Your task to perform on an android device: Open the calendar app, open the side menu, and click the "Day" option Image 0: 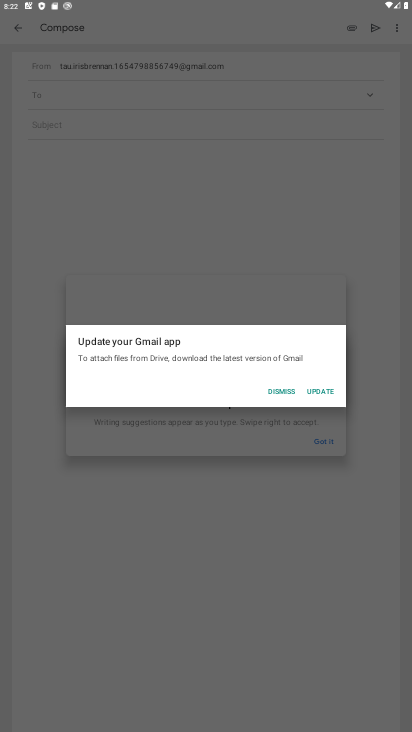
Step 0: click (334, 445)
Your task to perform on an android device: Open the calendar app, open the side menu, and click the "Day" option Image 1: 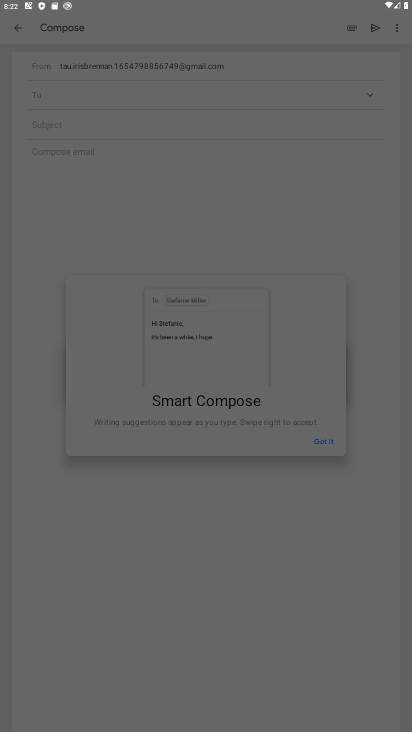
Step 1: press home button
Your task to perform on an android device: Open the calendar app, open the side menu, and click the "Day" option Image 2: 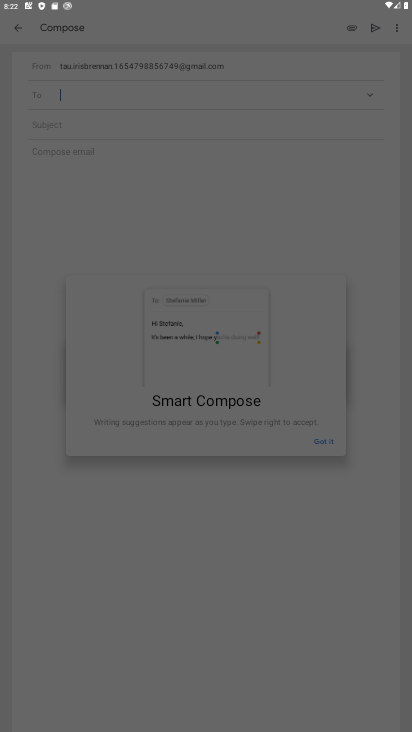
Step 2: click (174, 159)
Your task to perform on an android device: Open the calendar app, open the side menu, and click the "Day" option Image 3: 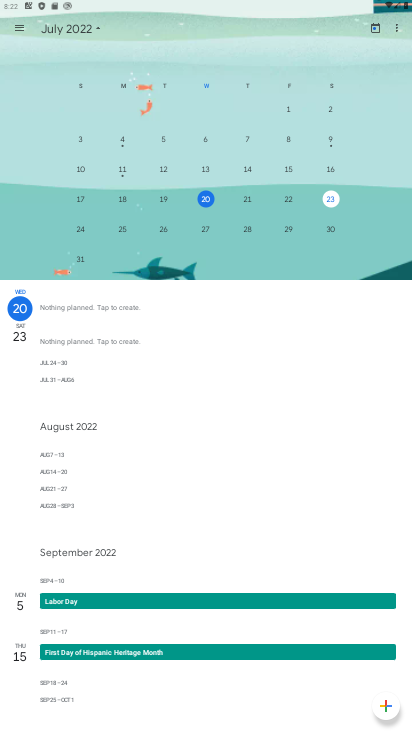
Step 3: drag from (201, 415) to (293, 7)
Your task to perform on an android device: Open the calendar app, open the side menu, and click the "Day" option Image 4: 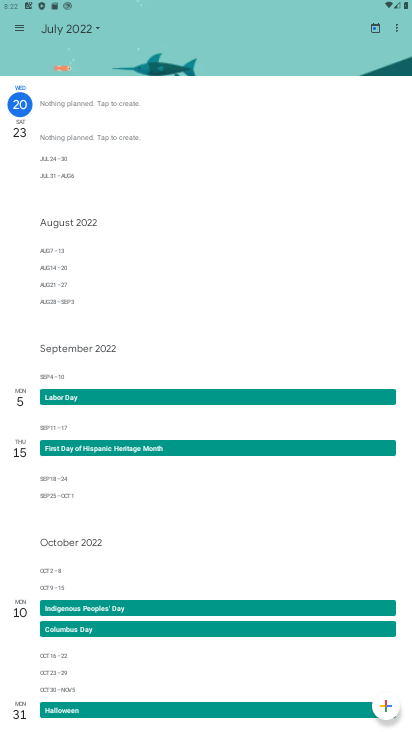
Step 4: press home button
Your task to perform on an android device: Open the calendar app, open the side menu, and click the "Day" option Image 5: 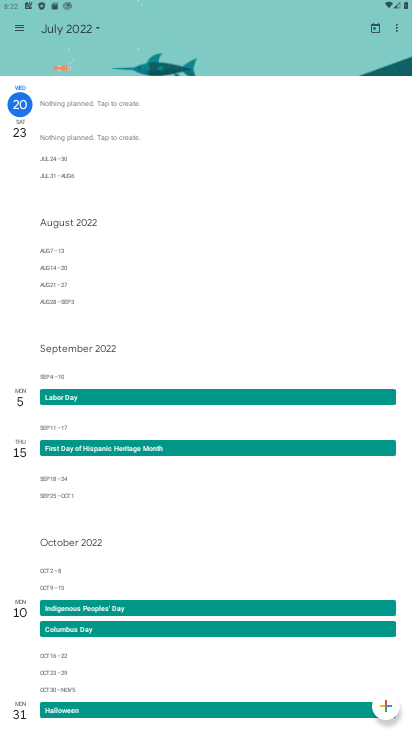
Step 5: drag from (163, 301) to (223, 15)
Your task to perform on an android device: Open the calendar app, open the side menu, and click the "Day" option Image 6: 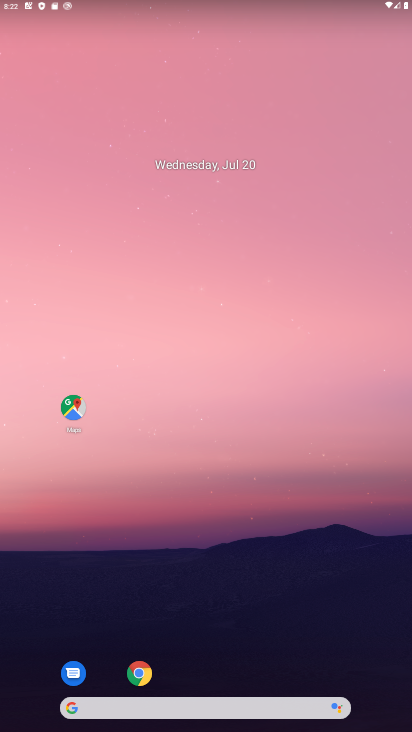
Step 6: drag from (155, 629) to (212, 30)
Your task to perform on an android device: Open the calendar app, open the side menu, and click the "Day" option Image 7: 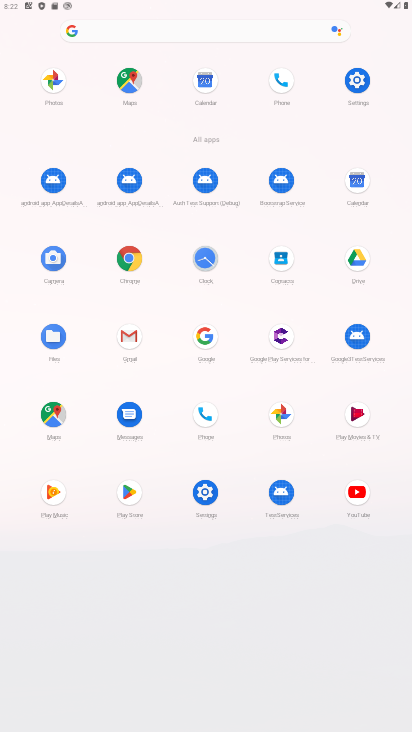
Step 7: click (355, 174)
Your task to perform on an android device: Open the calendar app, open the side menu, and click the "Day" option Image 8: 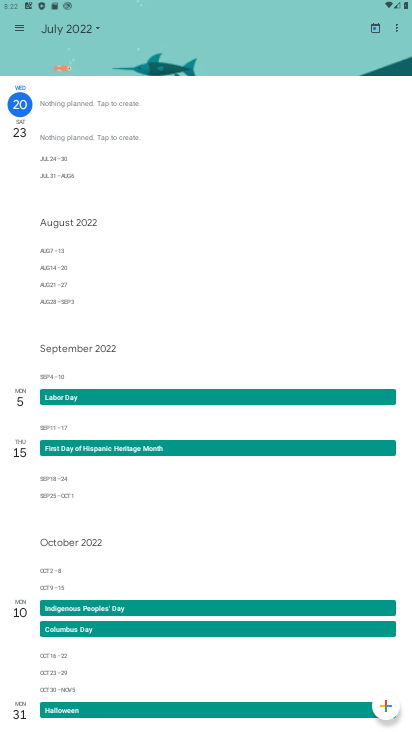
Step 8: click (15, 37)
Your task to perform on an android device: Open the calendar app, open the side menu, and click the "Day" option Image 9: 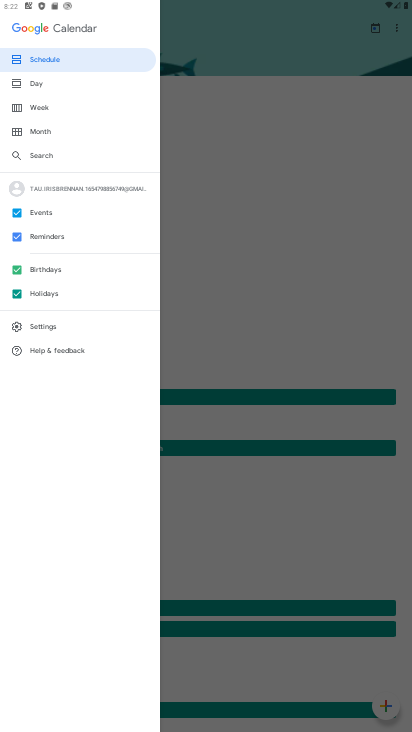
Step 9: click (45, 83)
Your task to perform on an android device: Open the calendar app, open the side menu, and click the "Day" option Image 10: 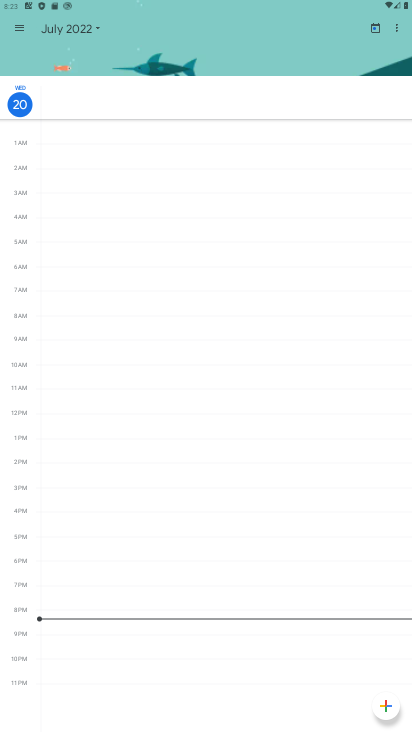
Step 10: task complete